Your task to perform on an android device: Open Google Maps Image 0: 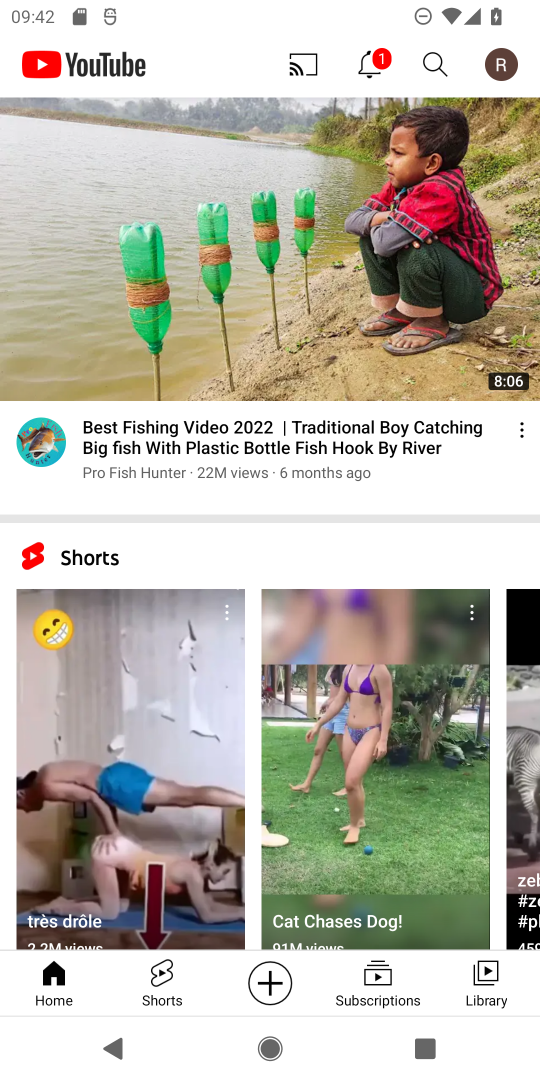
Step 0: press home button
Your task to perform on an android device: Open Google Maps Image 1: 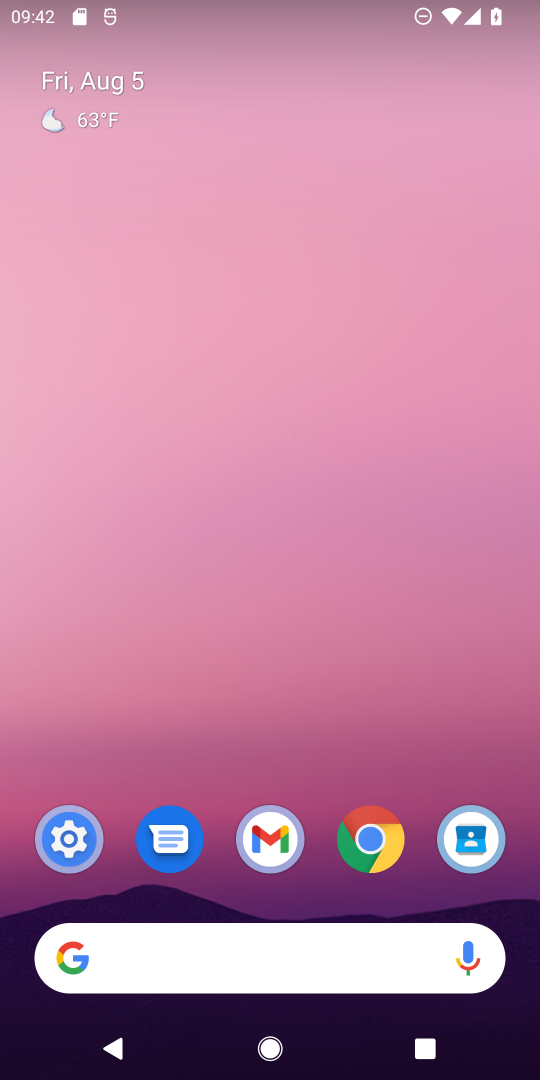
Step 1: drag from (328, 783) to (280, 130)
Your task to perform on an android device: Open Google Maps Image 2: 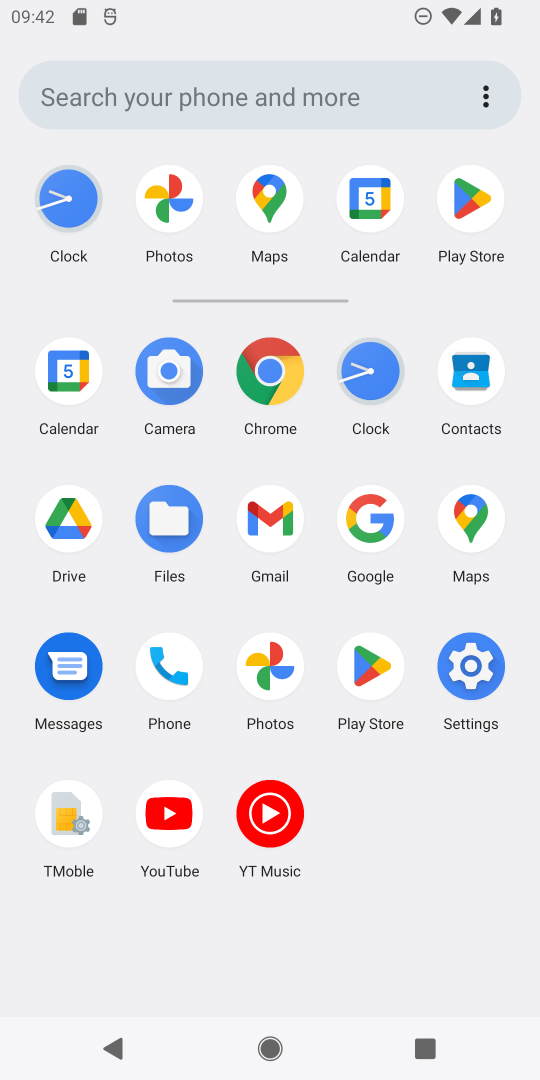
Step 2: click (473, 514)
Your task to perform on an android device: Open Google Maps Image 3: 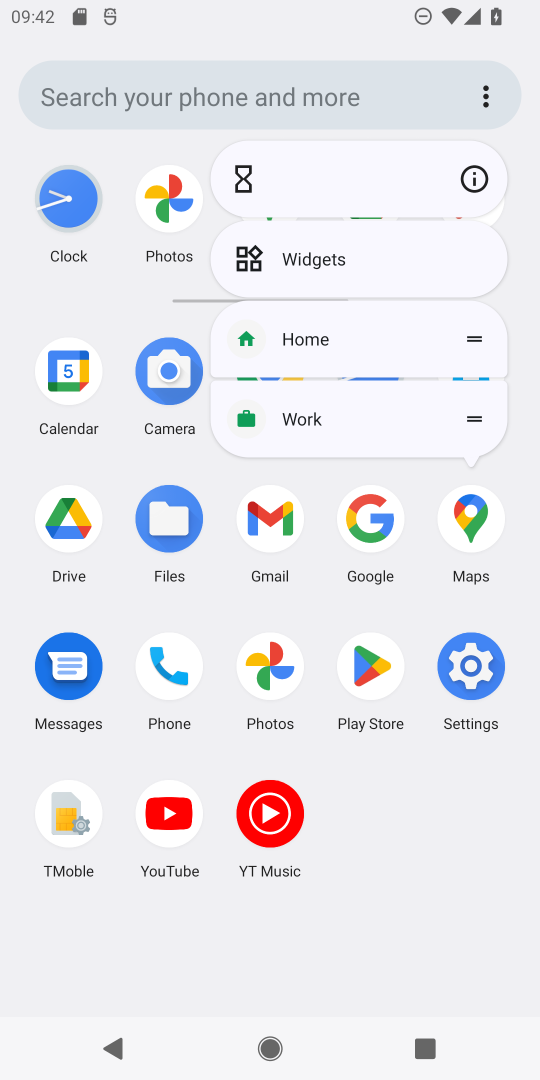
Step 3: click (474, 512)
Your task to perform on an android device: Open Google Maps Image 4: 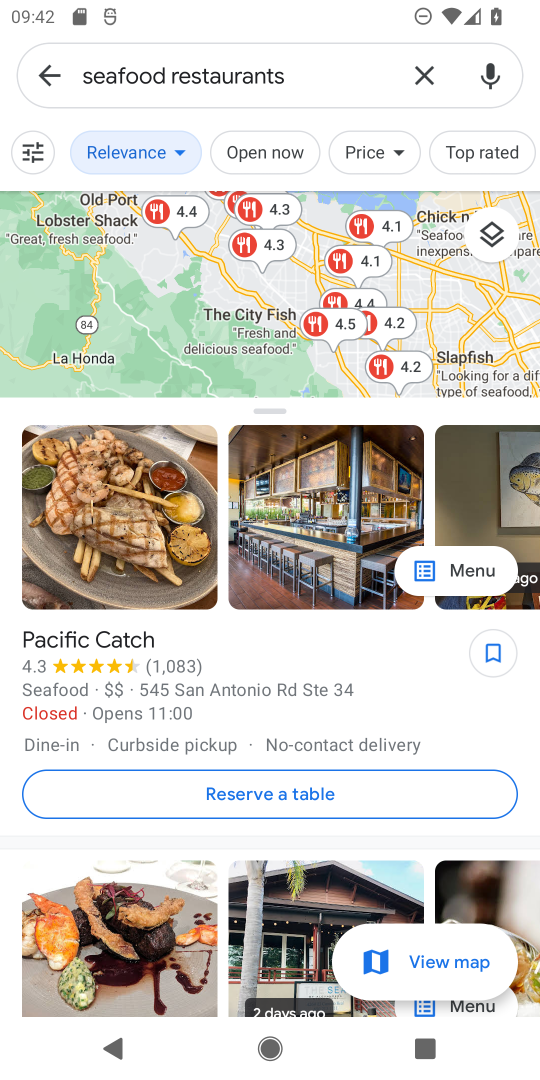
Step 4: task complete